Your task to perform on an android device: What is the news today? Image 0: 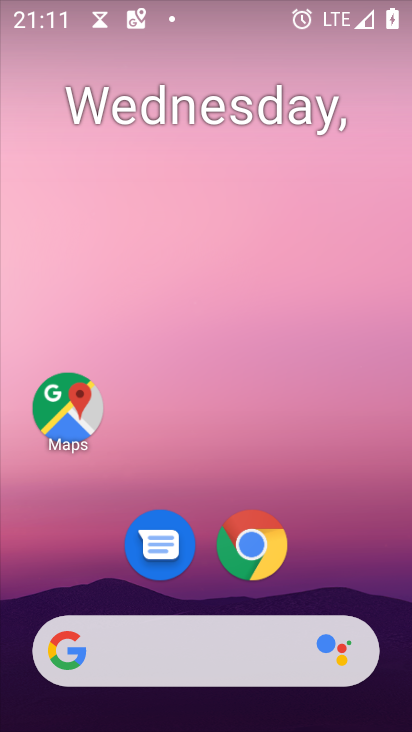
Step 0: click (74, 655)
Your task to perform on an android device: What is the news today? Image 1: 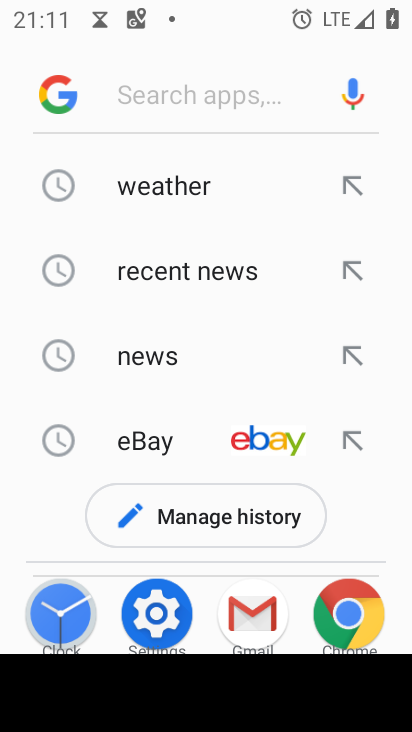
Step 1: click (165, 365)
Your task to perform on an android device: What is the news today? Image 2: 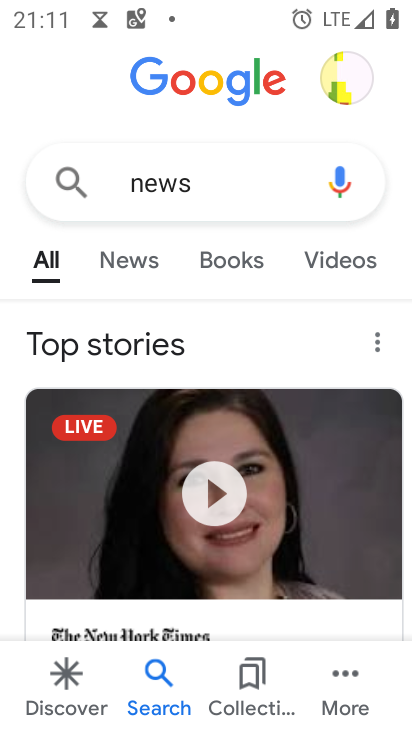
Step 2: click (118, 266)
Your task to perform on an android device: What is the news today? Image 3: 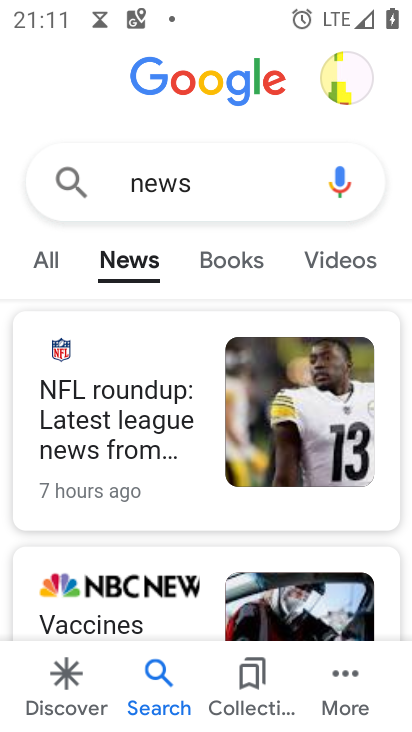
Step 3: task complete